Your task to perform on an android device: Go to Yahoo.com Image 0: 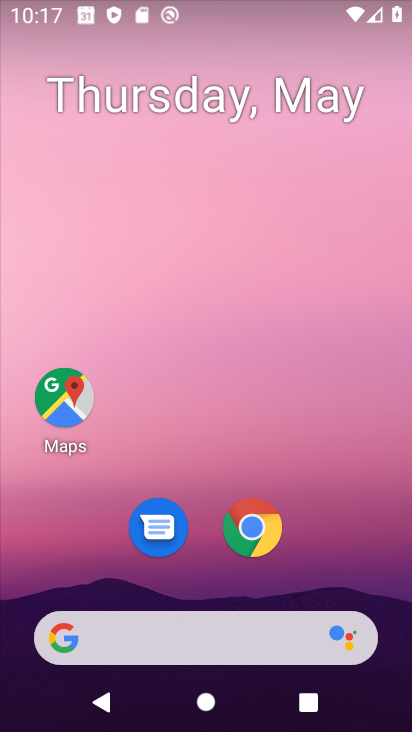
Step 0: click (252, 525)
Your task to perform on an android device: Go to Yahoo.com Image 1: 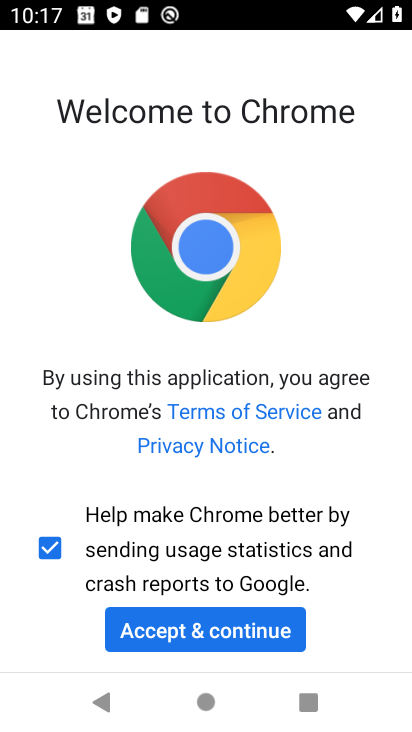
Step 1: click (210, 634)
Your task to perform on an android device: Go to Yahoo.com Image 2: 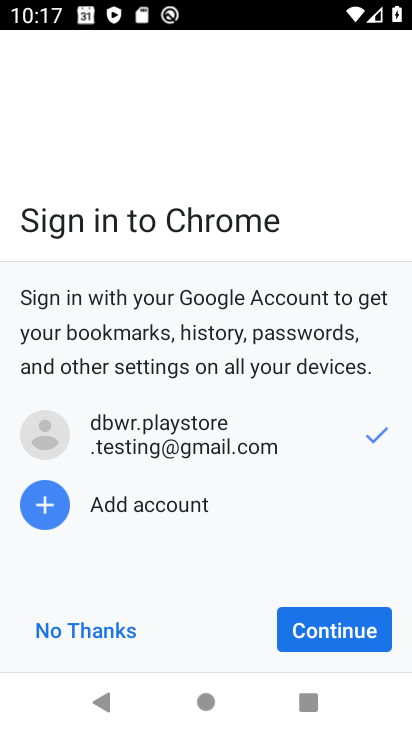
Step 2: click (348, 631)
Your task to perform on an android device: Go to Yahoo.com Image 3: 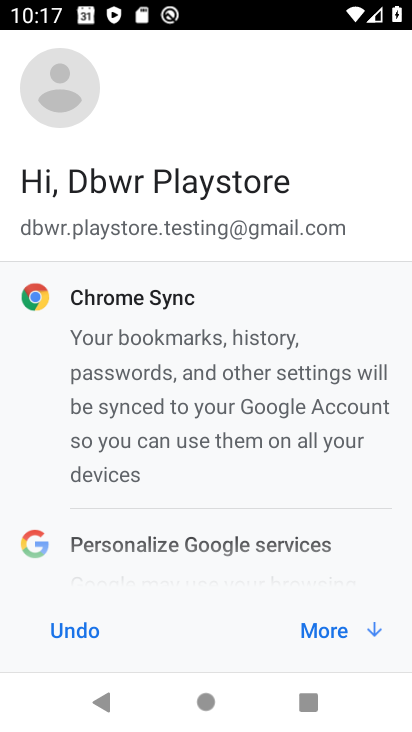
Step 3: click (348, 631)
Your task to perform on an android device: Go to Yahoo.com Image 4: 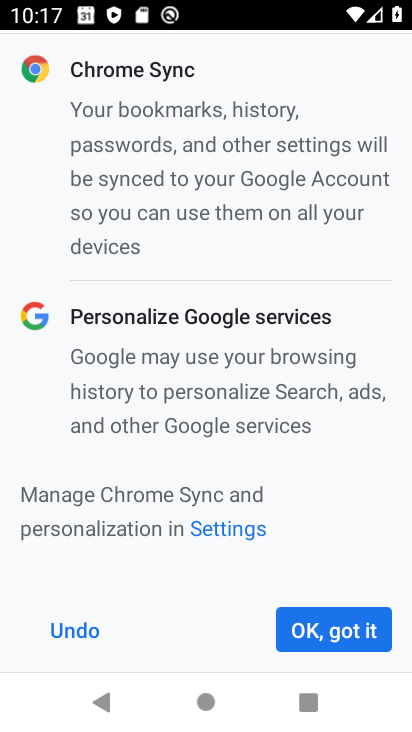
Step 4: click (348, 631)
Your task to perform on an android device: Go to Yahoo.com Image 5: 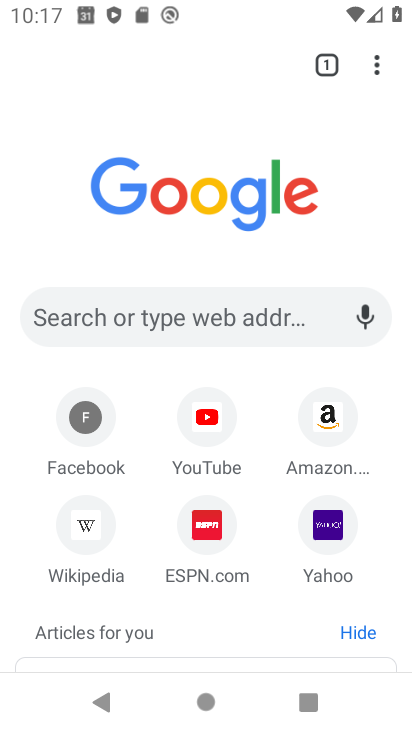
Step 5: click (197, 309)
Your task to perform on an android device: Go to Yahoo.com Image 6: 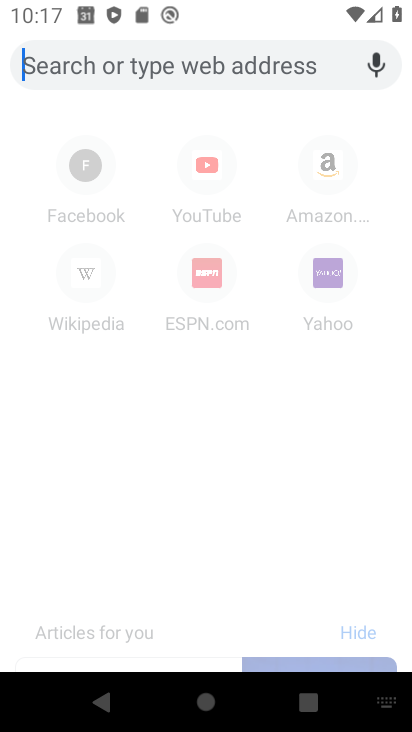
Step 6: type "Yahoo.com"
Your task to perform on an android device: Go to Yahoo.com Image 7: 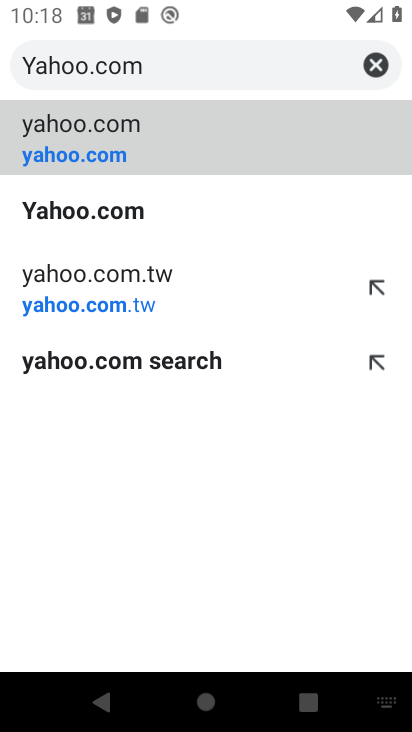
Step 7: click (86, 125)
Your task to perform on an android device: Go to Yahoo.com Image 8: 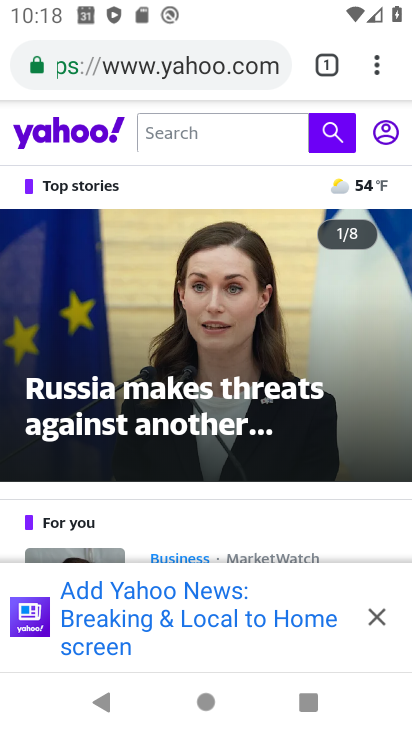
Step 8: task complete